Your task to perform on an android device: delete the emails in spam in the gmail app Image 0: 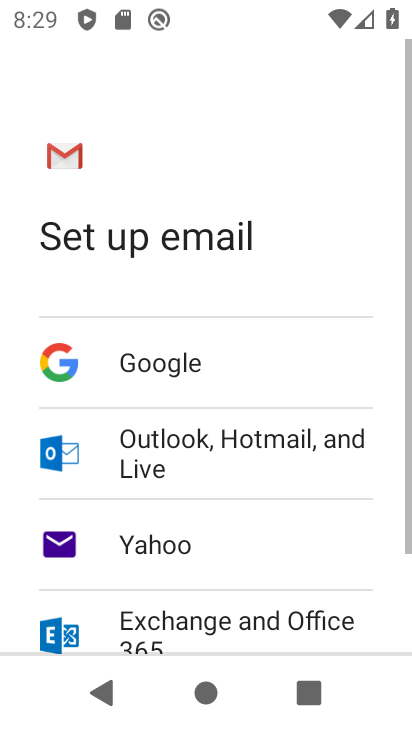
Step 0: press home button
Your task to perform on an android device: delete the emails in spam in the gmail app Image 1: 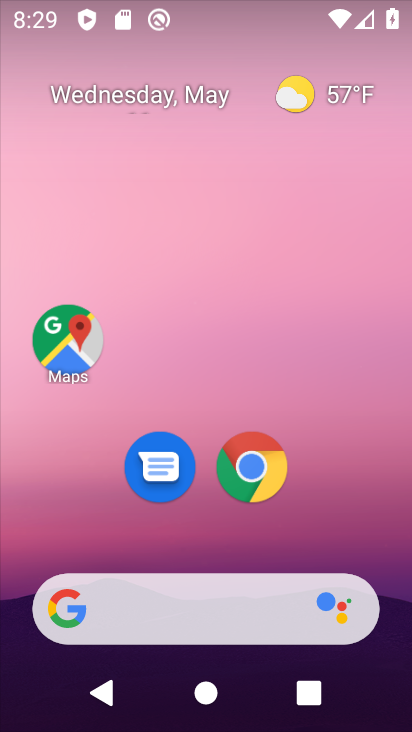
Step 1: press home button
Your task to perform on an android device: delete the emails in spam in the gmail app Image 2: 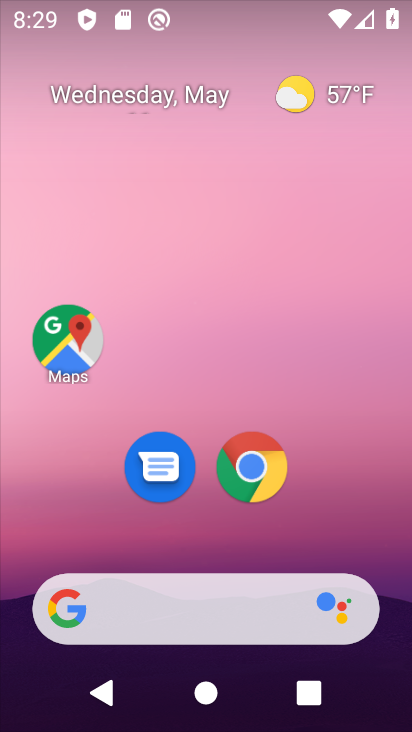
Step 2: drag from (135, 263) to (79, 71)
Your task to perform on an android device: delete the emails in spam in the gmail app Image 3: 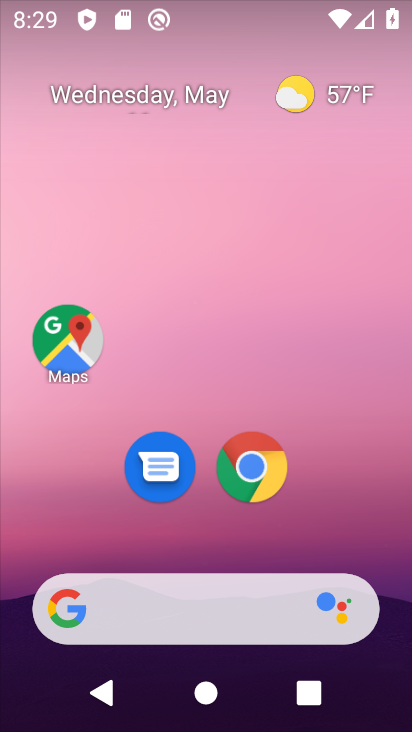
Step 3: drag from (328, 507) to (80, 94)
Your task to perform on an android device: delete the emails in spam in the gmail app Image 4: 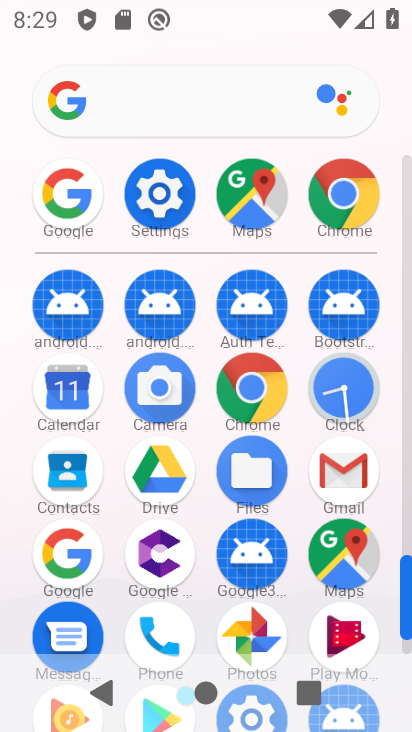
Step 4: click (340, 469)
Your task to perform on an android device: delete the emails in spam in the gmail app Image 5: 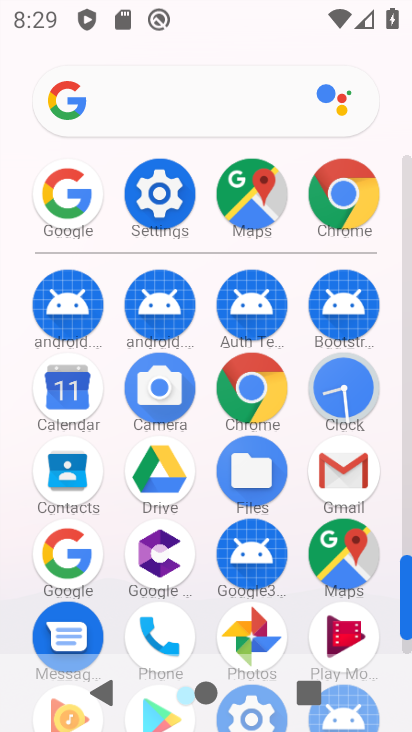
Step 5: click (340, 469)
Your task to perform on an android device: delete the emails in spam in the gmail app Image 6: 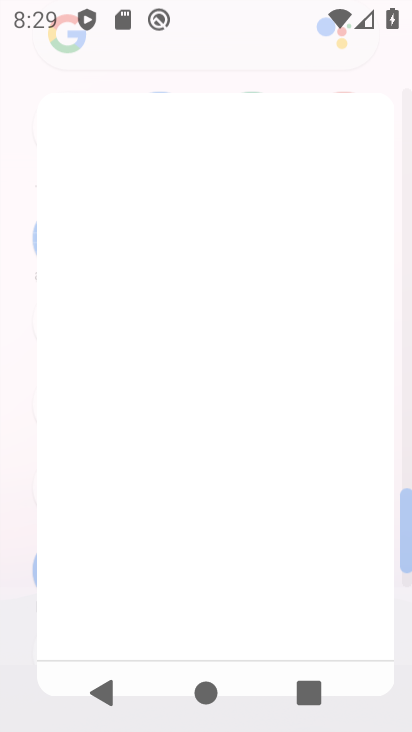
Step 6: click (340, 469)
Your task to perform on an android device: delete the emails in spam in the gmail app Image 7: 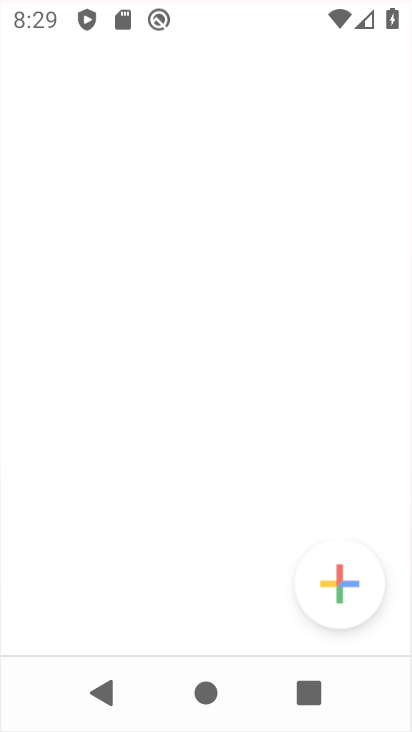
Step 7: click (340, 469)
Your task to perform on an android device: delete the emails in spam in the gmail app Image 8: 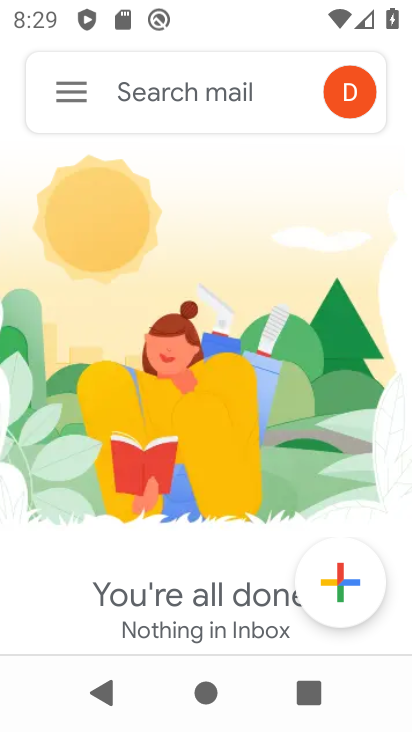
Step 8: click (71, 100)
Your task to perform on an android device: delete the emails in spam in the gmail app Image 9: 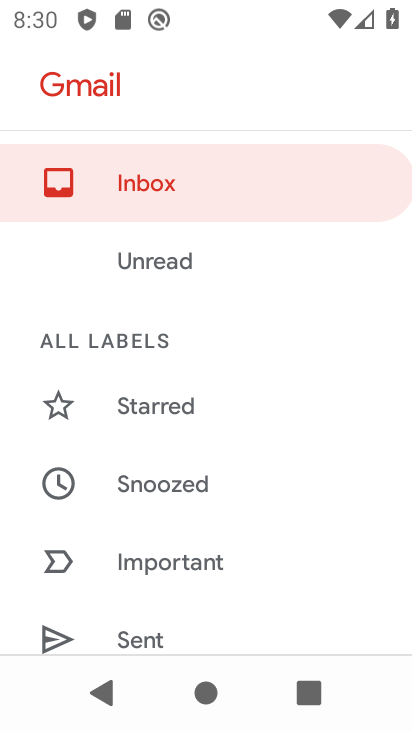
Step 9: drag from (238, 477) to (119, 60)
Your task to perform on an android device: delete the emails in spam in the gmail app Image 10: 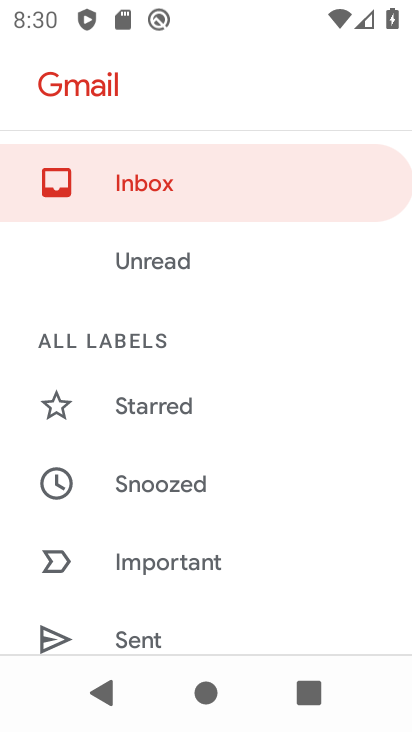
Step 10: drag from (217, 391) to (202, 168)
Your task to perform on an android device: delete the emails in spam in the gmail app Image 11: 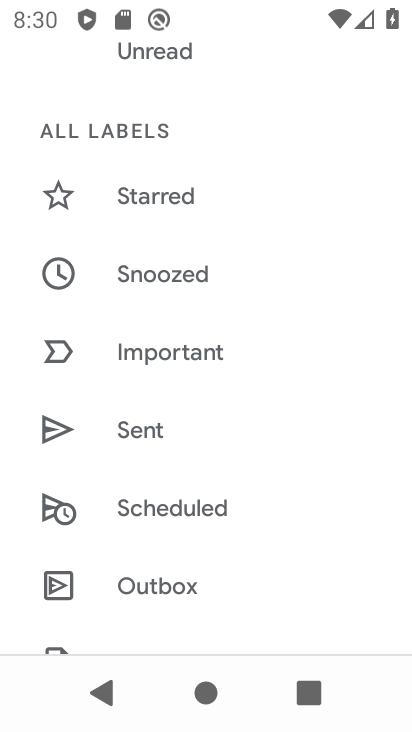
Step 11: drag from (201, 465) to (224, 113)
Your task to perform on an android device: delete the emails in spam in the gmail app Image 12: 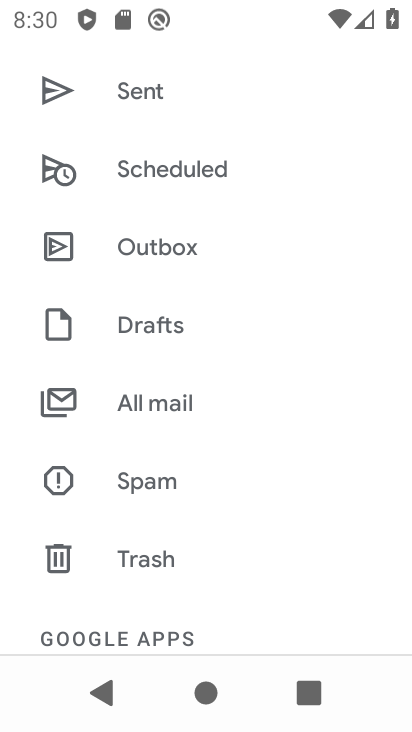
Step 12: drag from (190, 370) to (137, 37)
Your task to perform on an android device: delete the emails in spam in the gmail app Image 13: 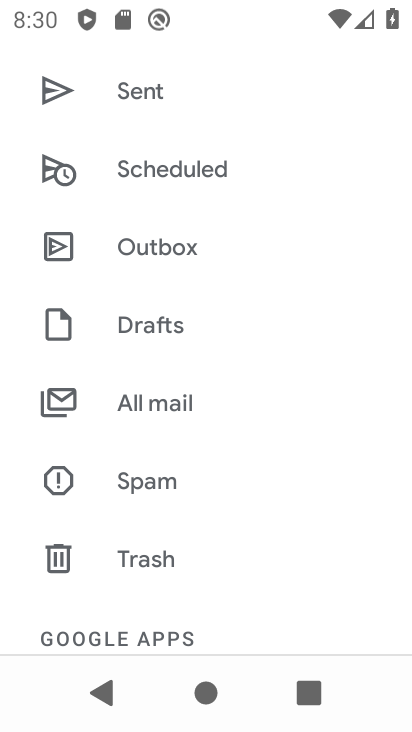
Step 13: drag from (224, 447) to (162, 41)
Your task to perform on an android device: delete the emails in spam in the gmail app Image 14: 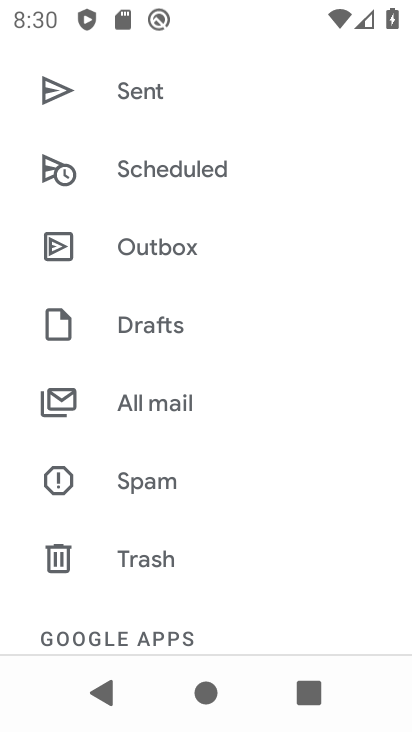
Step 14: drag from (228, 420) to (199, 121)
Your task to perform on an android device: delete the emails in spam in the gmail app Image 15: 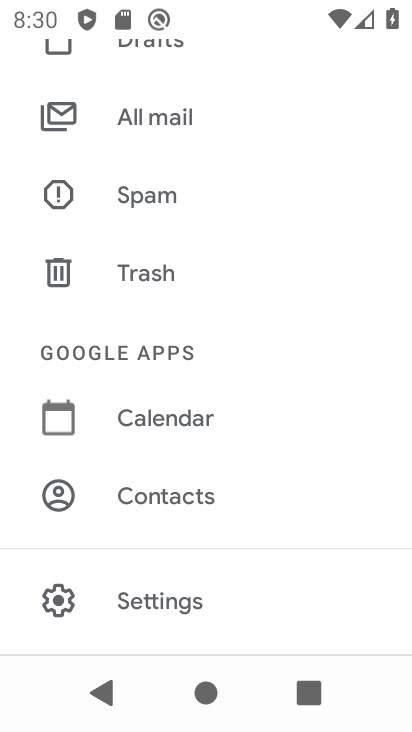
Step 15: drag from (151, 109) to (119, 25)
Your task to perform on an android device: delete the emails in spam in the gmail app Image 16: 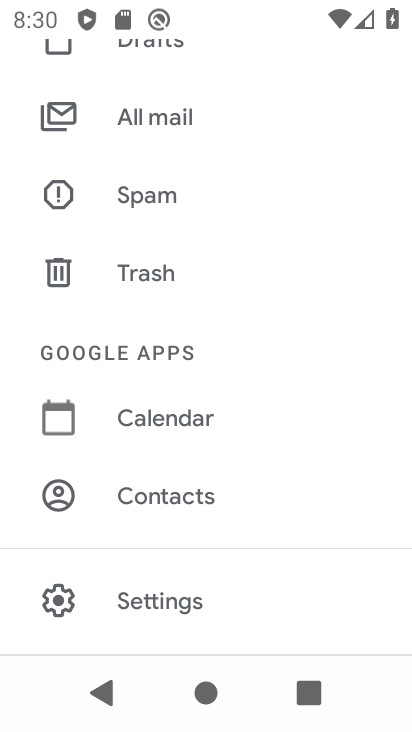
Step 16: drag from (225, 283) to (226, 238)
Your task to perform on an android device: delete the emails in spam in the gmail app Image 17: 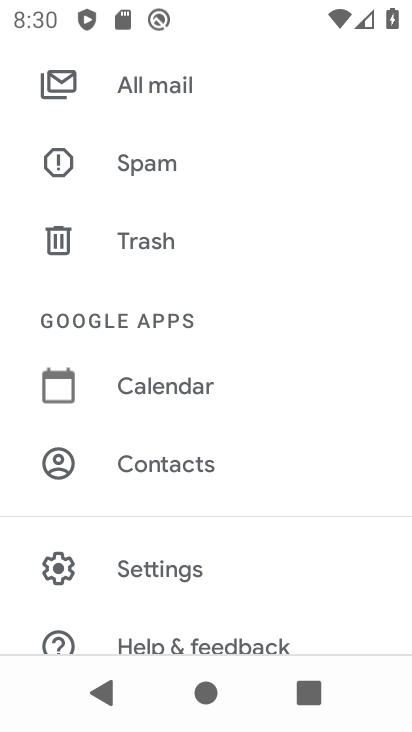
Step 17: drag from (157, 227) to (203, 626)
Your task to perform on an android device: delete the emails in spam in the gmail app Image 18: 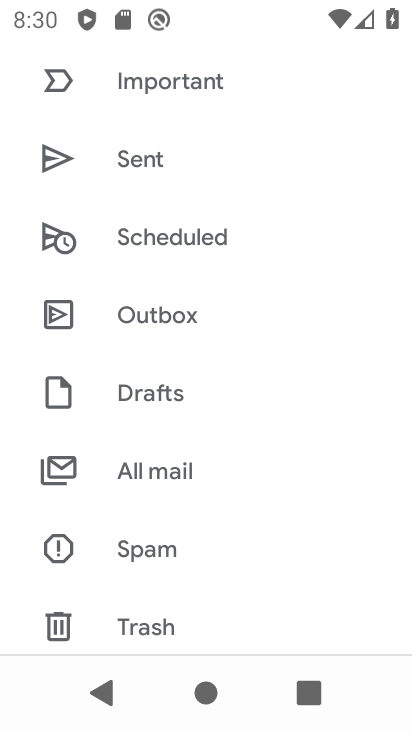
Step 18: drag from (205, 317) to (234, 672)
Your task to perform on an android device: delete the emails in spam in the gmail app Image 19: 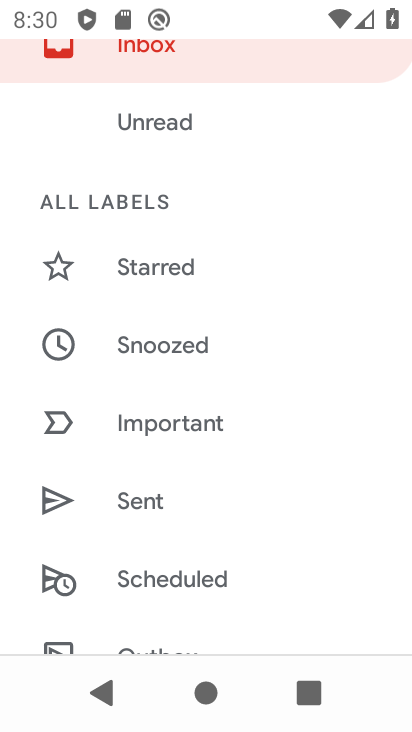
Step 19: drag from (228, 519) to (161, 122)
Your task to perform on an android device: delete the emails in spam in the gmail app Image 20: 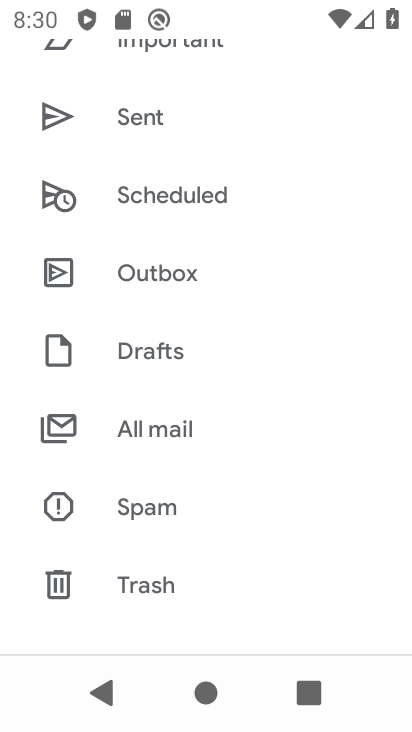
Step 20: click (162, 429)
Your task to perform on an android device: delete the emails in spam in the gmail app Image 21: 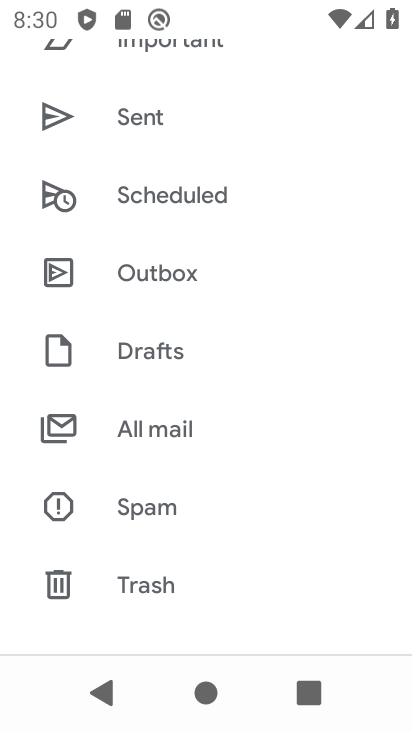
Step 21: click (161, 427)
Your task to perform on an android device: delete the emails in spam in the gmail app Image 22: 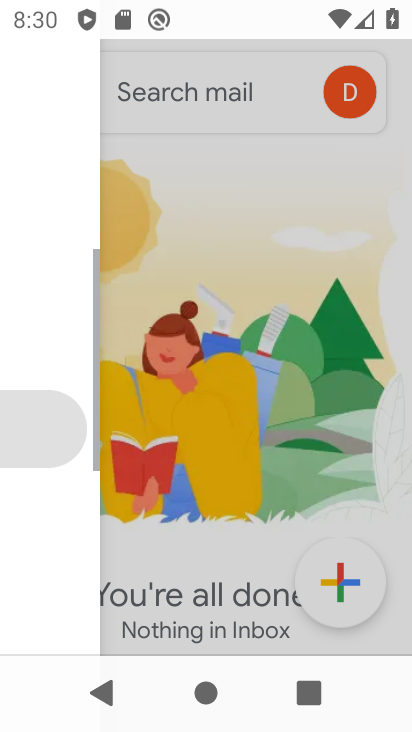
Step 22: click (161, 426)
Your task to perform on an android device: delete the emails in spam in the gmail app Image 23: 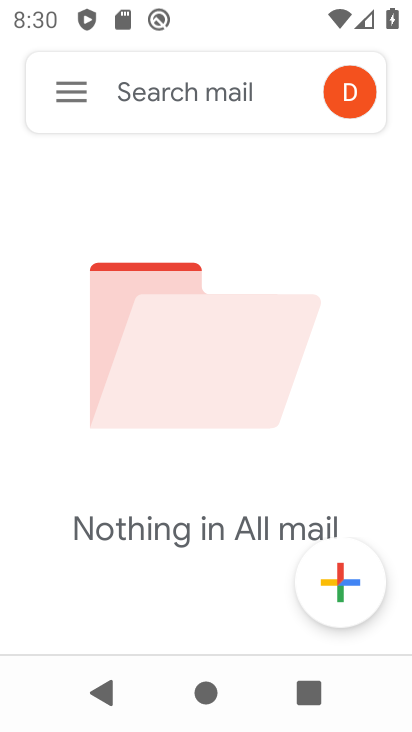
Step 23: task complete